Your task to perform on an android device: Go to Wikipedia Image 0: 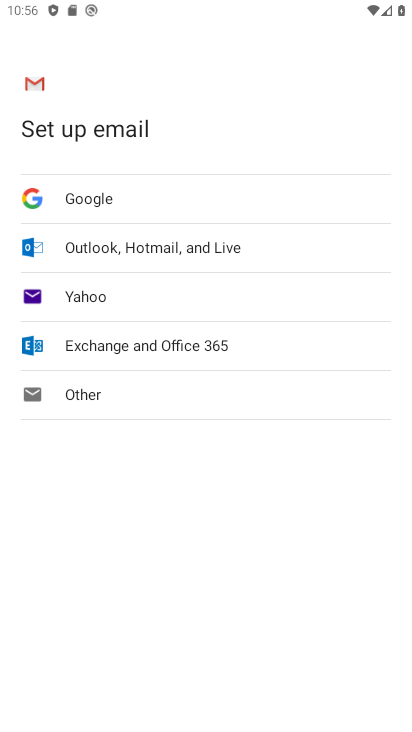
Step 0: press home button
Your task to perform on an android device: Go to Wikipedia Image 1: 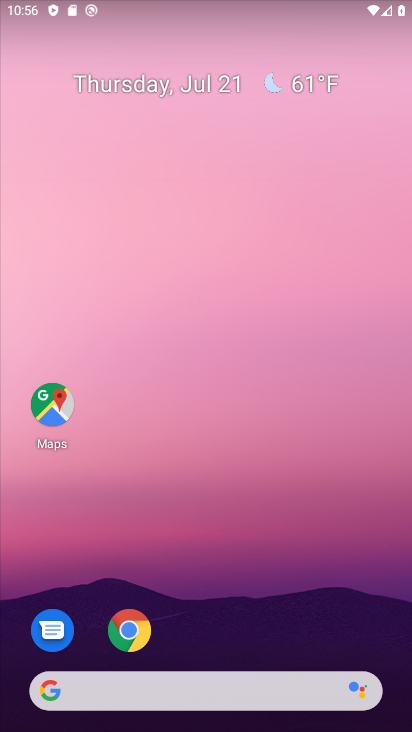
Step 1: click (127, 631)
Your task to perform on an android device: Go to Wikipedia Image 2: 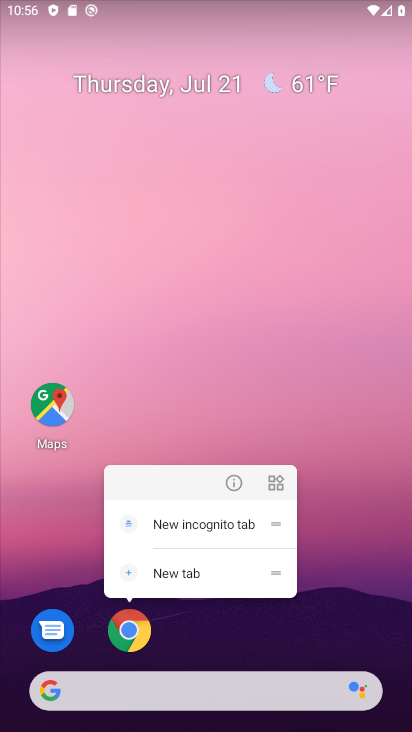
Step 2: click (115, 635)
Your task to perform on an android device: Go to Wikipedia Image 3: 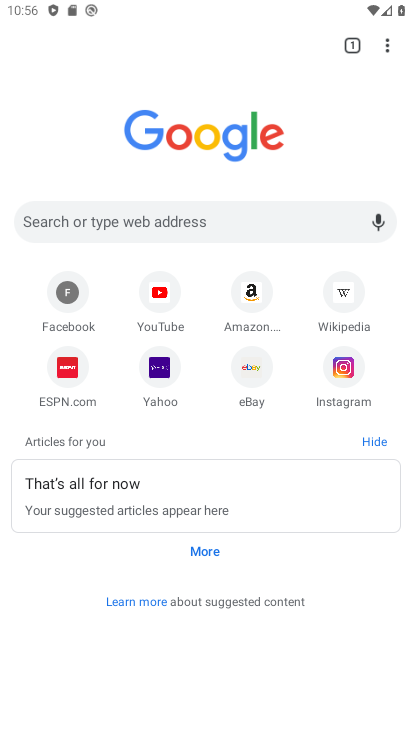
Step 3: click (348, 282)
Your task to perform on an android device: Go to Wikipedia Image 4: 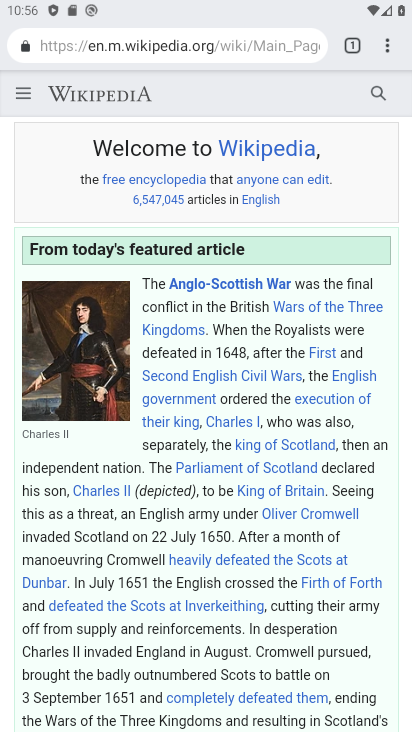
Step 4: task complete